Your task to perform on an android device: Check the weather Image 0: 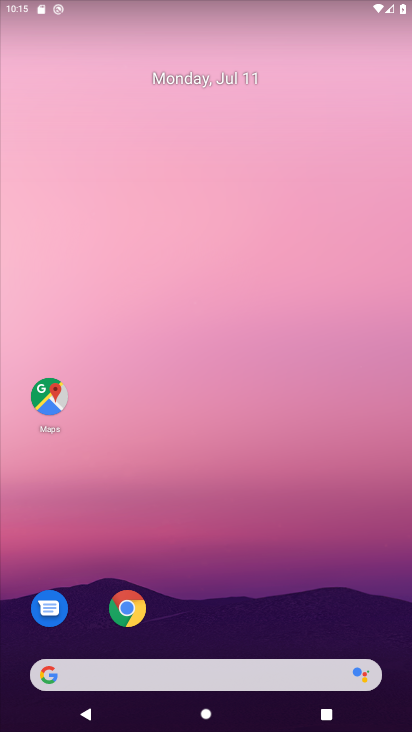
Step 0: drag from (3, 260) to (410, 260)
Your task to perform on an android device: Check the weather Image 1: 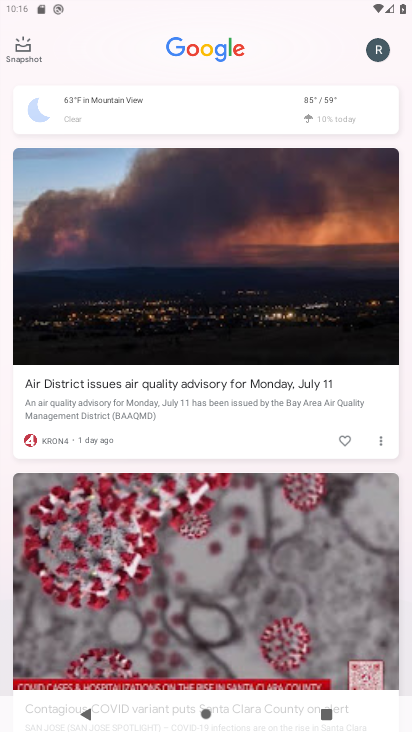
Step 1: click (202, 122)
Your task to perform on an android device: Check the weather Image 2: 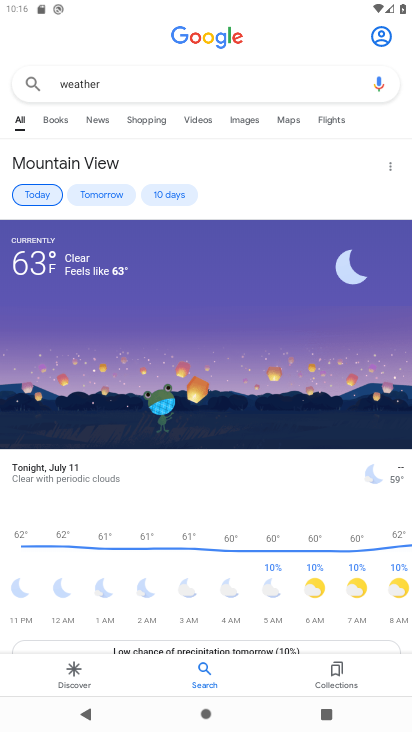
Step 2: task complete